Your task to perform on an android device: Go to internet settings Image 0: 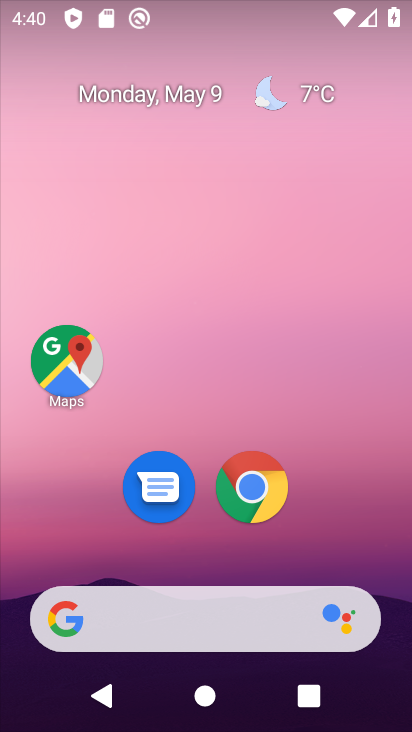
Step 0: drag from (211, 506) to (244, 140)
Your task to perform on an android device: Go to internet settings Image 1: 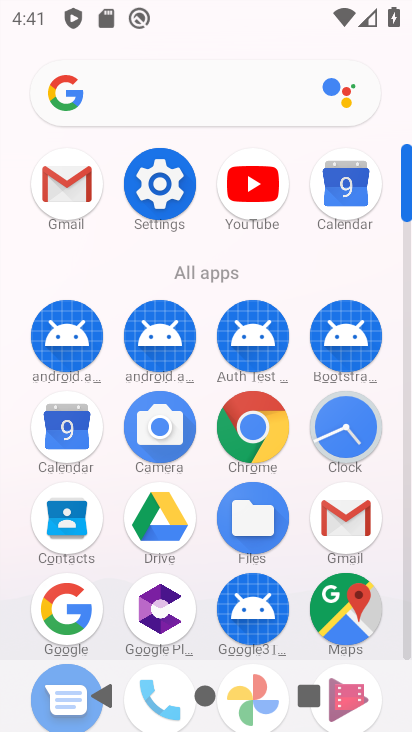
Step 1: click (176, 175)
Your task to perform on an android device: Go to internet settings Image 2: 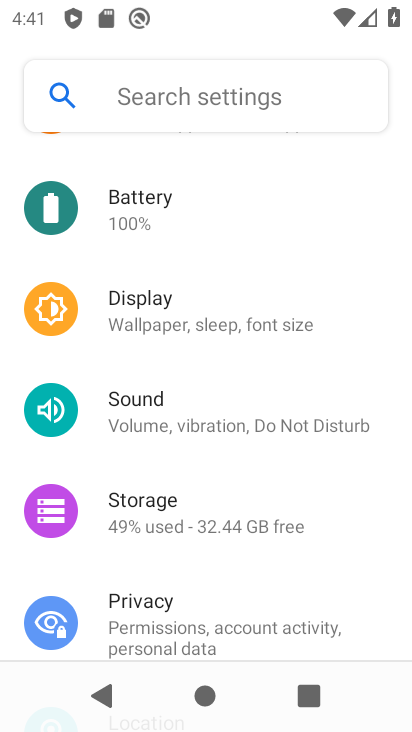
Step 2: drag from (242, 163) to (220, 634)
Your task to perform on an android device: Go to internet settings Image 3: 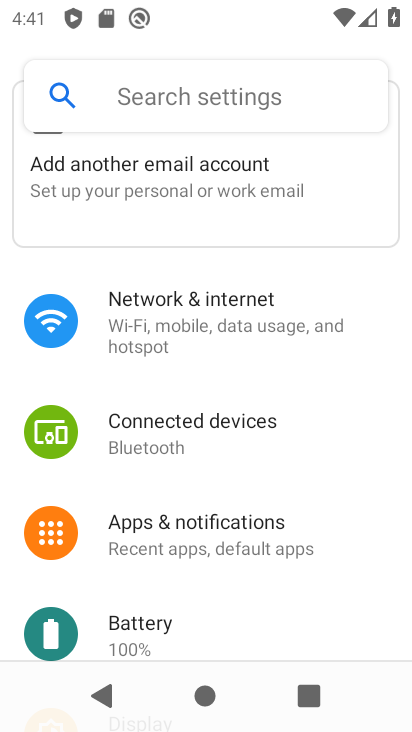
Step 3: click (237, 290)
Your task to perform on an android device: Go to internet settings Image 4: 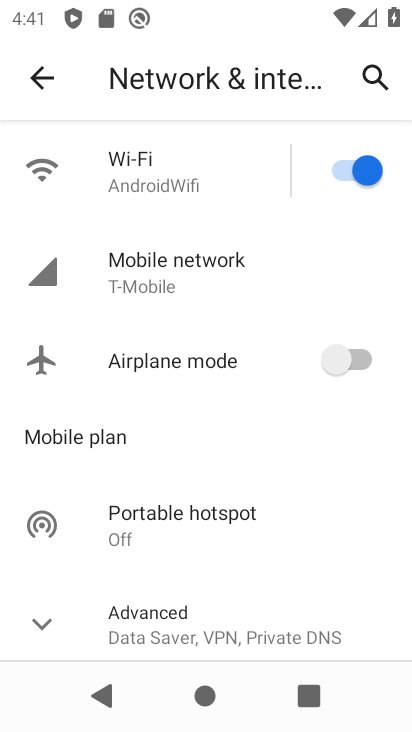
Step 4: click (185, 273)
Your task to perform on an android device: Go to internet settings Image 5: 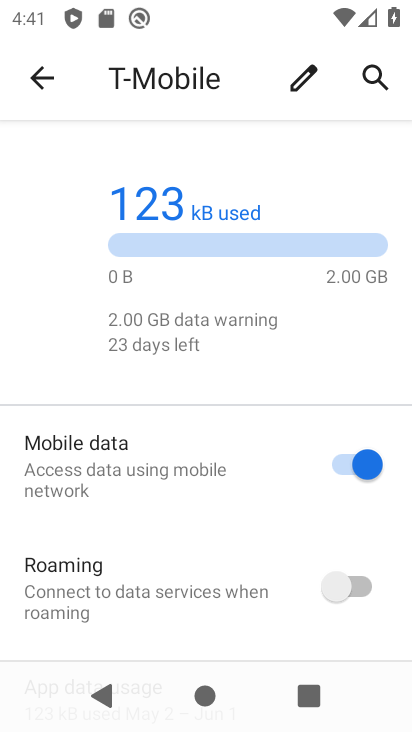
Step 5: task complete